Your task to perform on an android device: Open wifi settings Image 0: 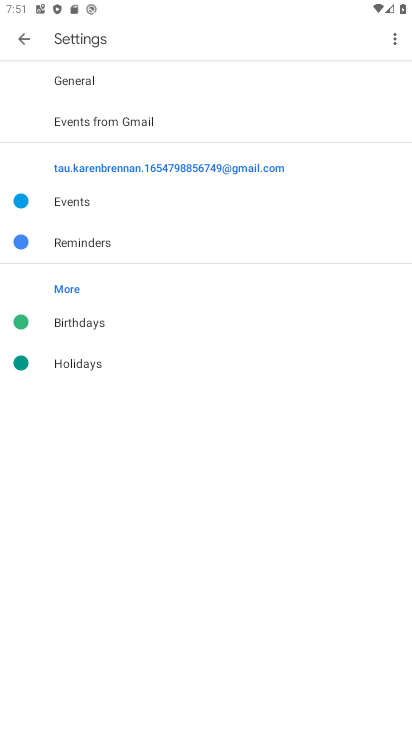
Step 0: press home button
Your task to perform on an android device: Open wifi settings Image 1: 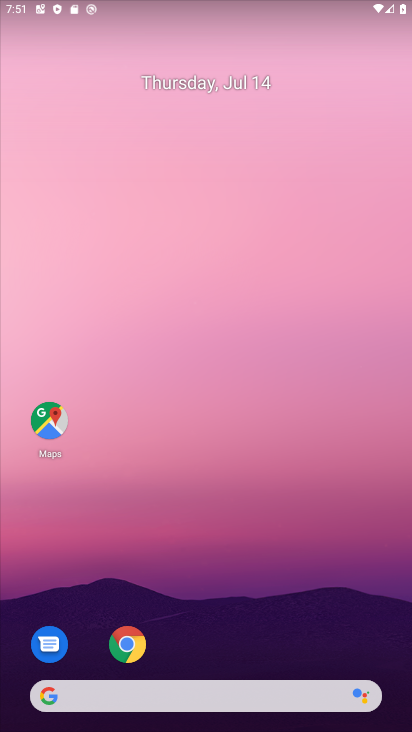
Step 1: drag from (191, 706) to (371, 264)
Your task to perform on an android device: Open wifi settings Image 2: 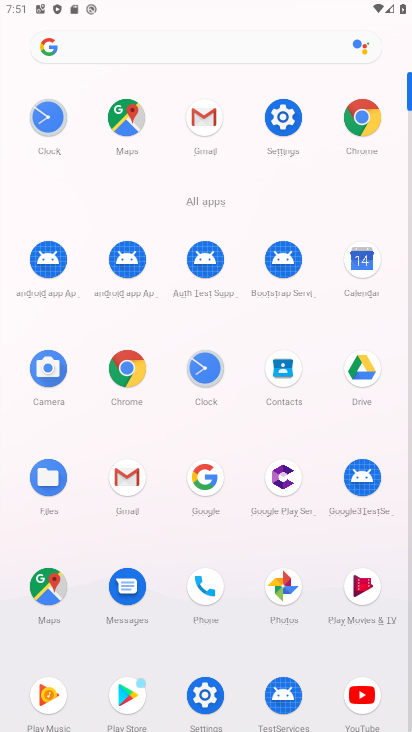
Step 2: click (291, 118)
Your task to perform on an android device: Open wifi settings Image 3: 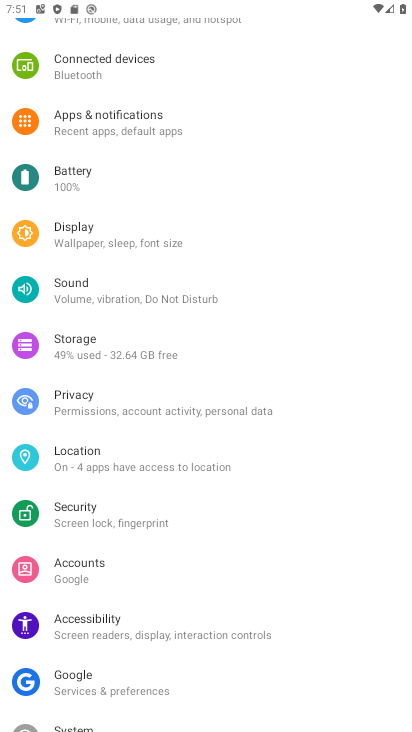
Step 3: drag from (275, 107) to (231, 338)
Your task to perform on an android device: Open wifi settings Image 4: 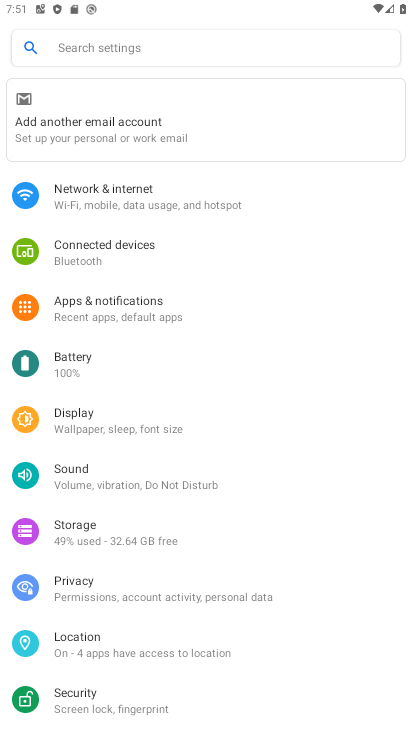
Step 4: click (153, 186)
Your task to perform on an android device: Open wifi settings Image 5: 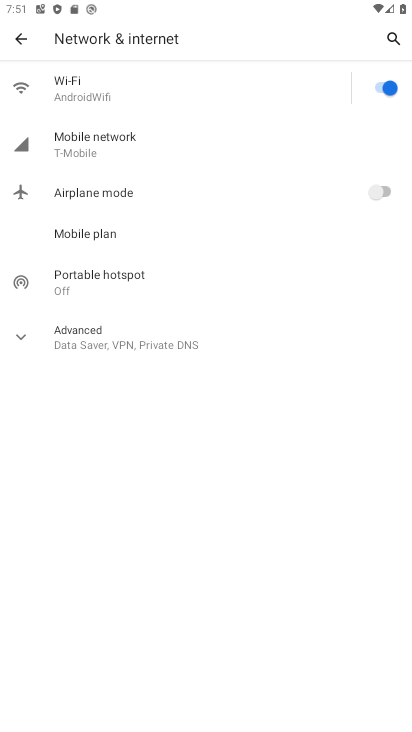
Step 5: click (108, 94)
Your task to perform on an android device: Open wifi settings Image 6: 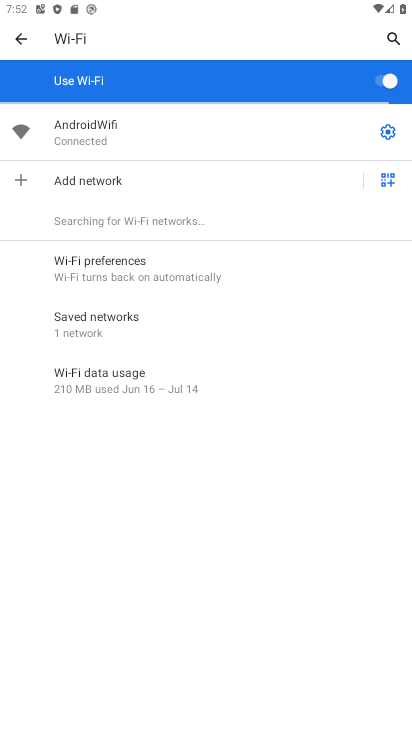
Step 6: task complete